Your task to perform on an android device: toggle location history Image 0: 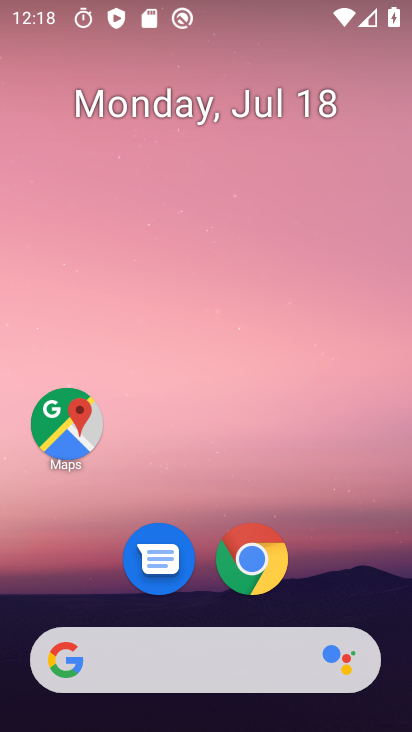
Step 0: drag from (217, 582) to (255, 4)
Your task to perform on an android device: toggle location history Image 1: 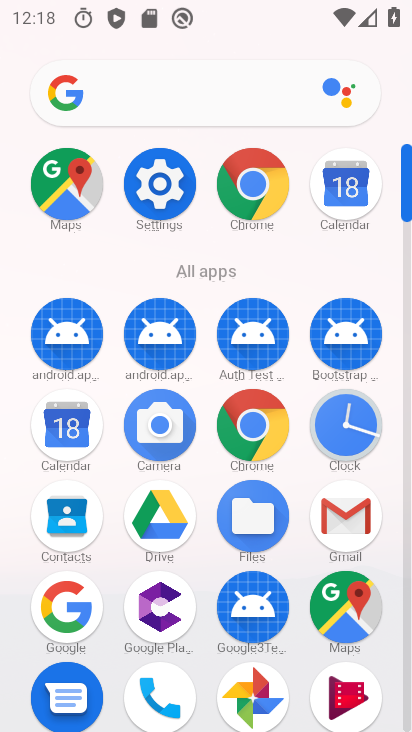
Step 1: click (145, 176)
Your task to perform on an android device: toggle location history Image 2: 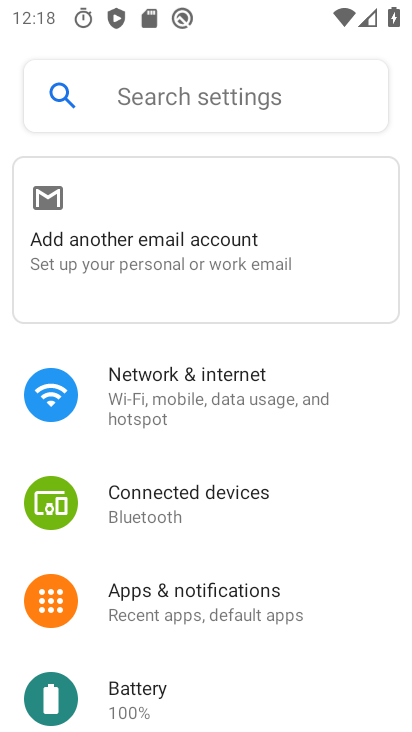
Step 2: drag from (184, 641) to (271, 57)
Your task to perform on an android device: toggle location history Image 3: 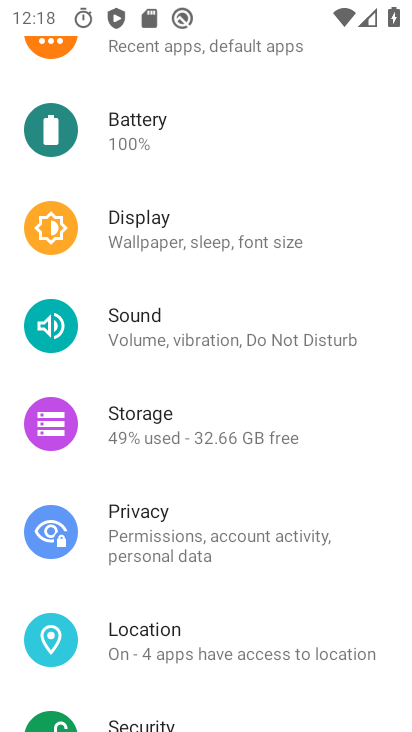
Step 3: click (143, 637)
Your task to perform on an android device: toggle location history Image 4: 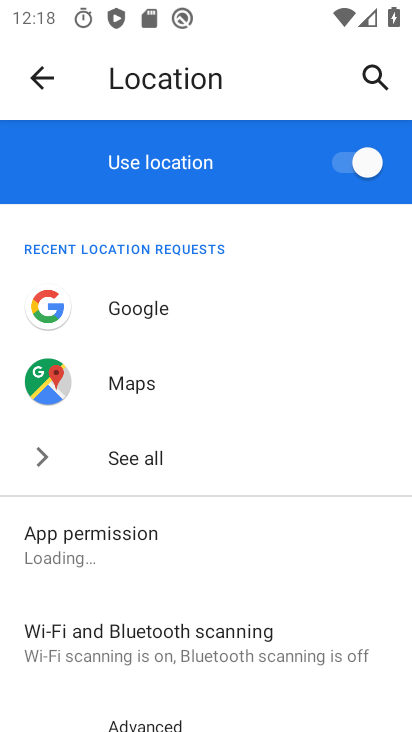
Step 4: drag from (160, 674) to (224, 298)
Your task to perform on an android device: toggle location history Image 5: 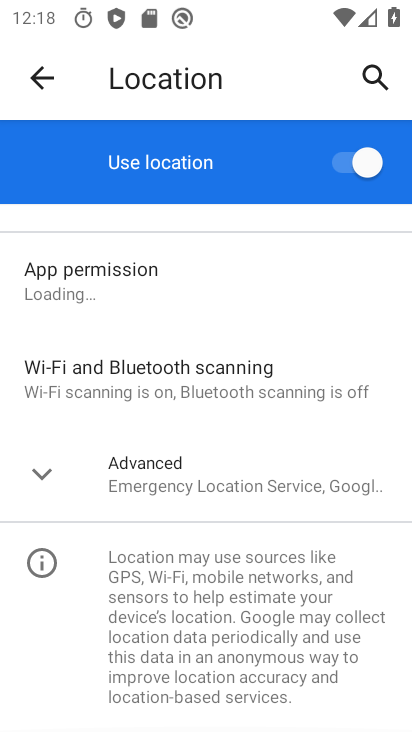
Step 5: click (204, 476)
Your task to perform on an android device: toggle location history Image 6: 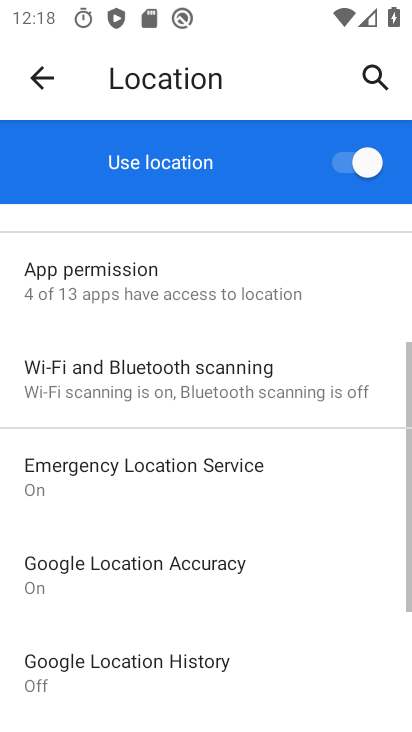
Step 6: click (133, 672)
Your task to perform on an android device: toggle location history Image 7: 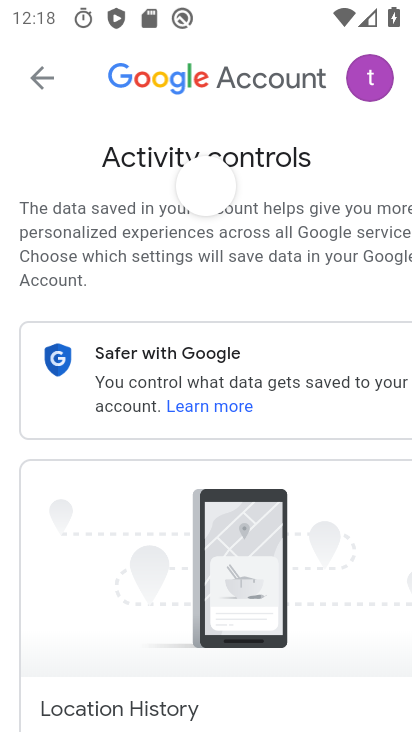
Step 7: drag from (216, 609) to (283, 110)
Your task to perform on an android device: toggle location history Image 8: 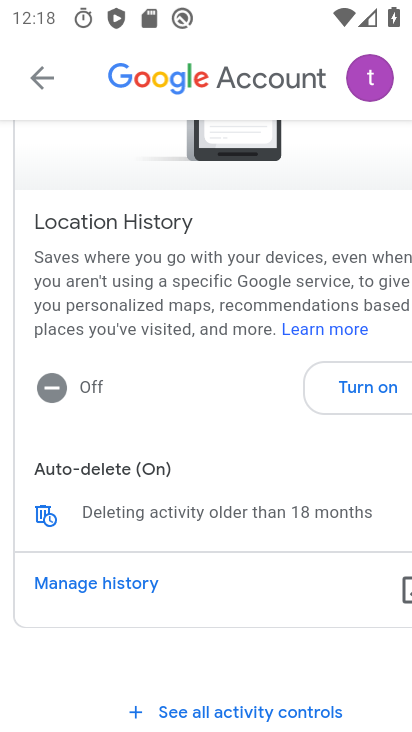
Step 8: click (351, 388)
Your task to perform on an android device: toggle location history Image 9: 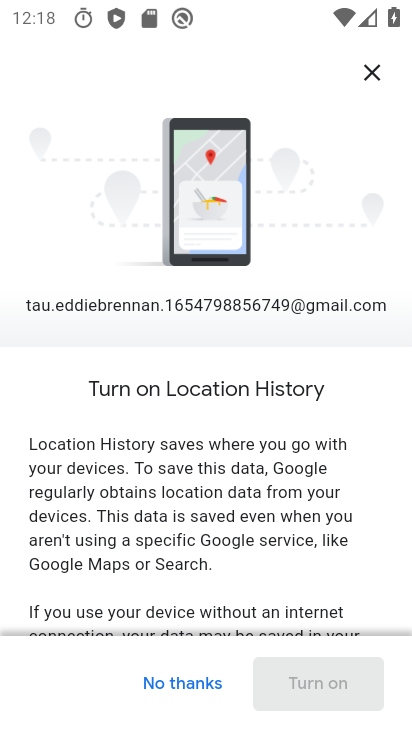
Step 9: drag from (199, 622) to (259, 32)
Your task to perform on an android device: toggle location history Image 10: 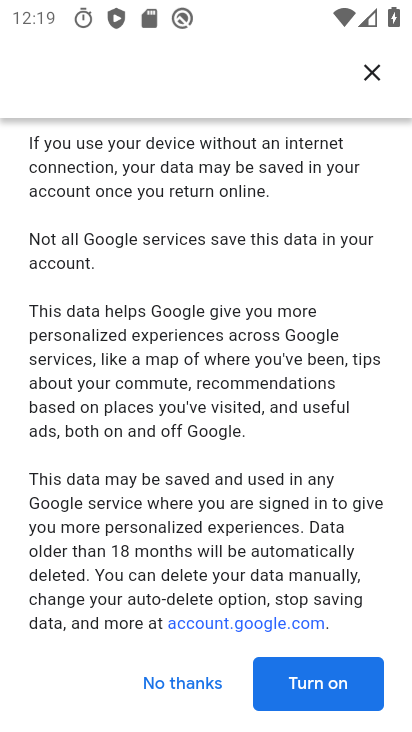
Step 10: drag from (218, 574) to (239, 73)
Your task to perform on an android device: toggle location history Image 11: 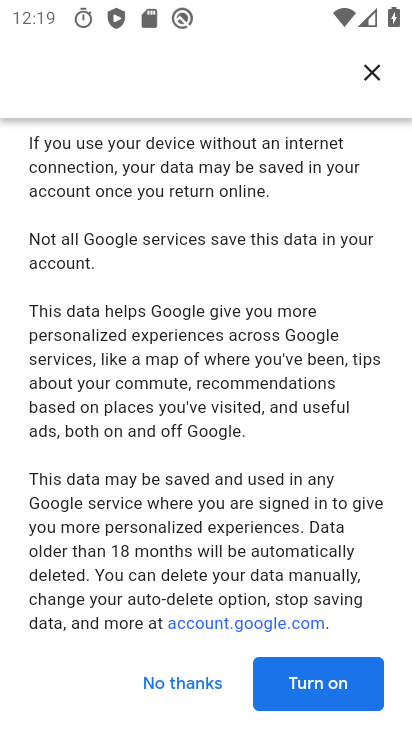
Step 11: click (314, 699)
Your task to perform on an android device: toggle location history Image 12: 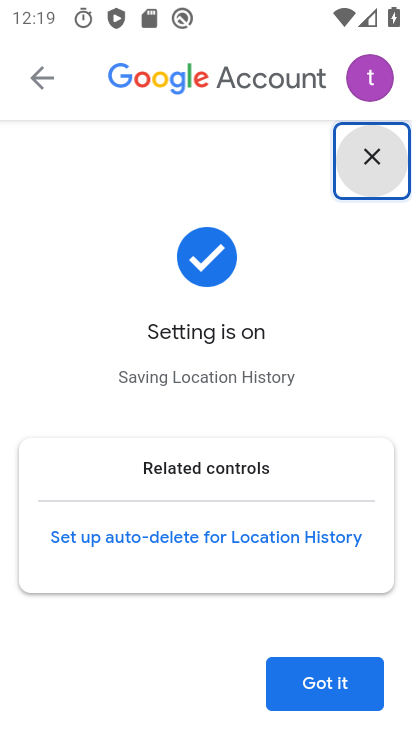
Step 12: click (326, 680)
Your task to perform on an android device: toggle location history Image 13: 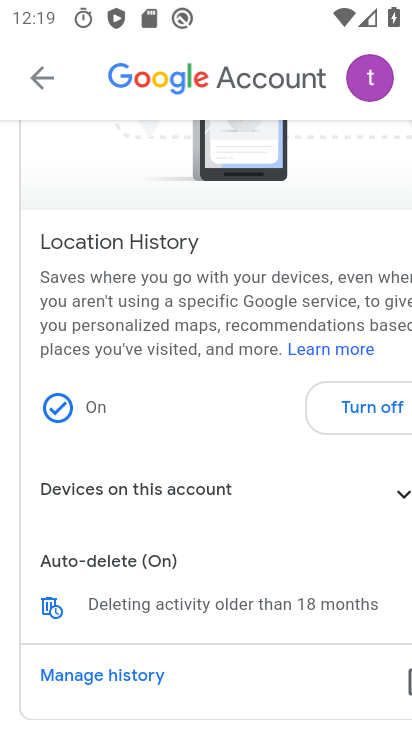
Step 13: task complete